Your task to perform on an android device: Search for bose soundlink mini on ebay.com, select the first entry, add it to the cart, then select checkout. Image 0: 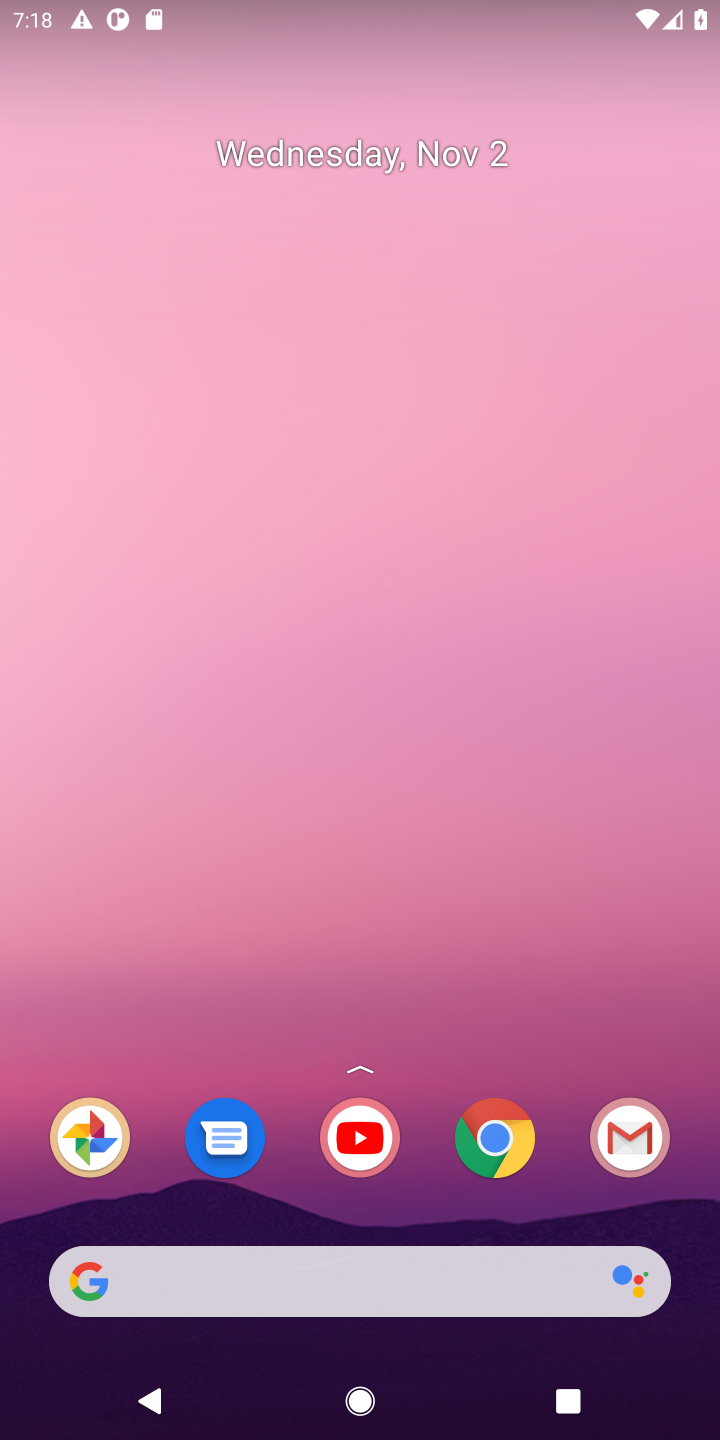
Step 0: drag from (340, 935) to (340, 172)
Your task to perform on an android device: Search for bose soundlink mini on ebay.com, select the first entry, add it to the cart, then select checkout. Image 1: 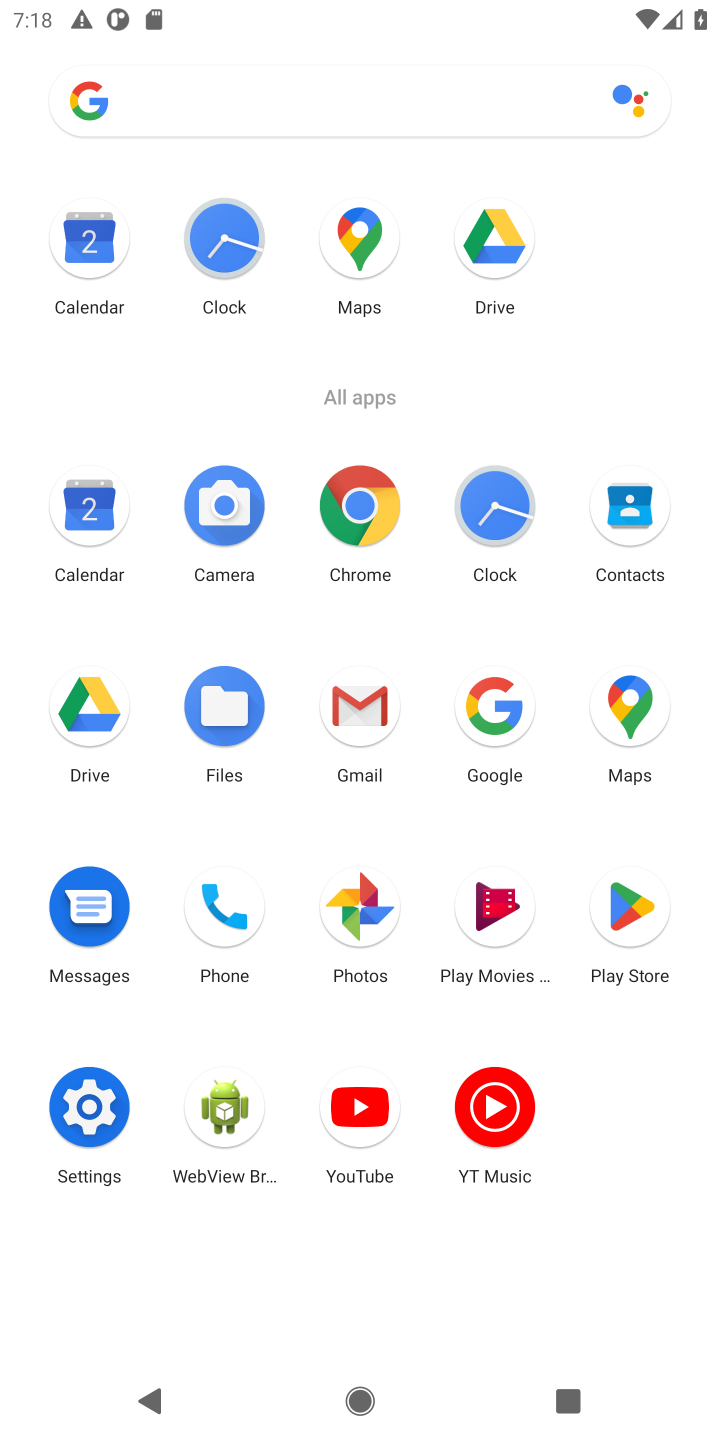
Step 1: click (496, 705)
Your task to perform on an android device: Search for bose soundlink mini on ebay.com, select the first entry, add it to the cart, then select checkout. Image 2: 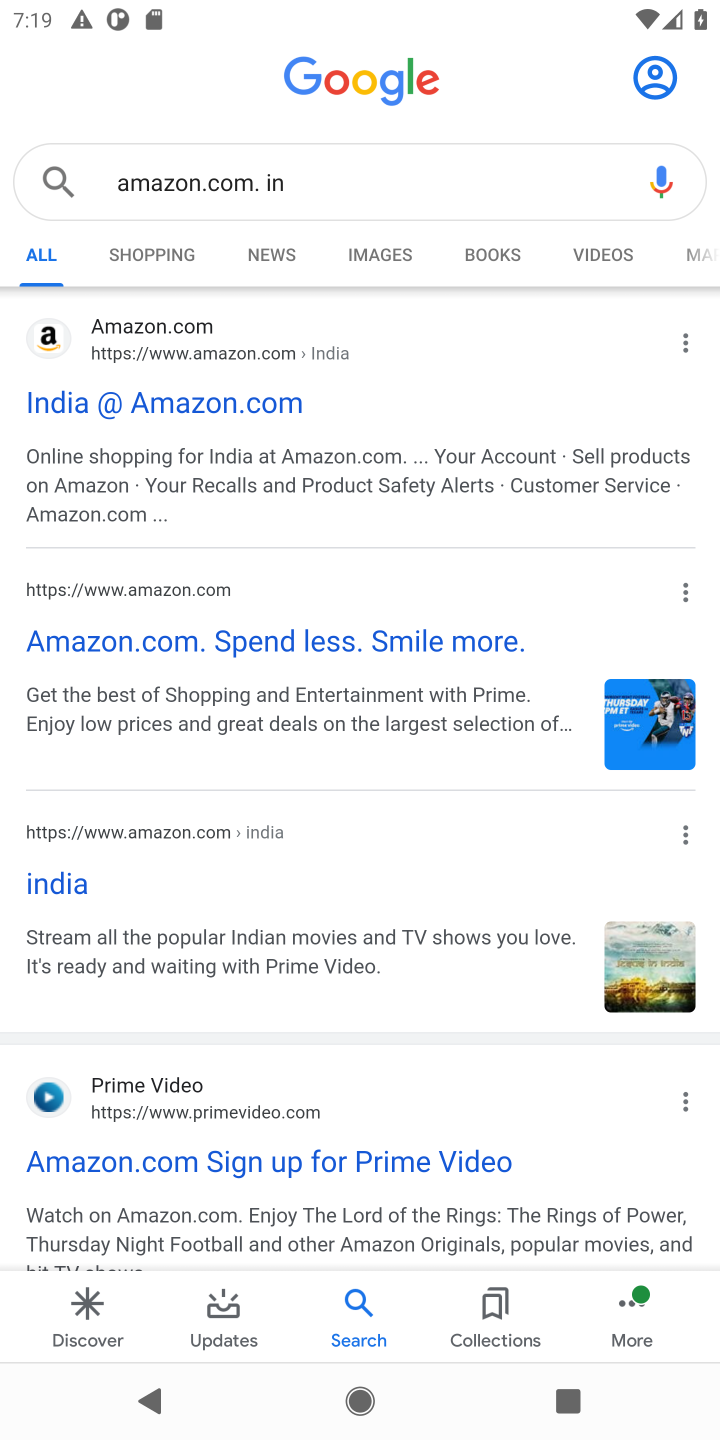
Step 2: click (323, 147)
Your task to perform on an android device: Search for bose soundlink mini on ebay.com, select the first entry, add it to the cart, then select checkout. Image 3: 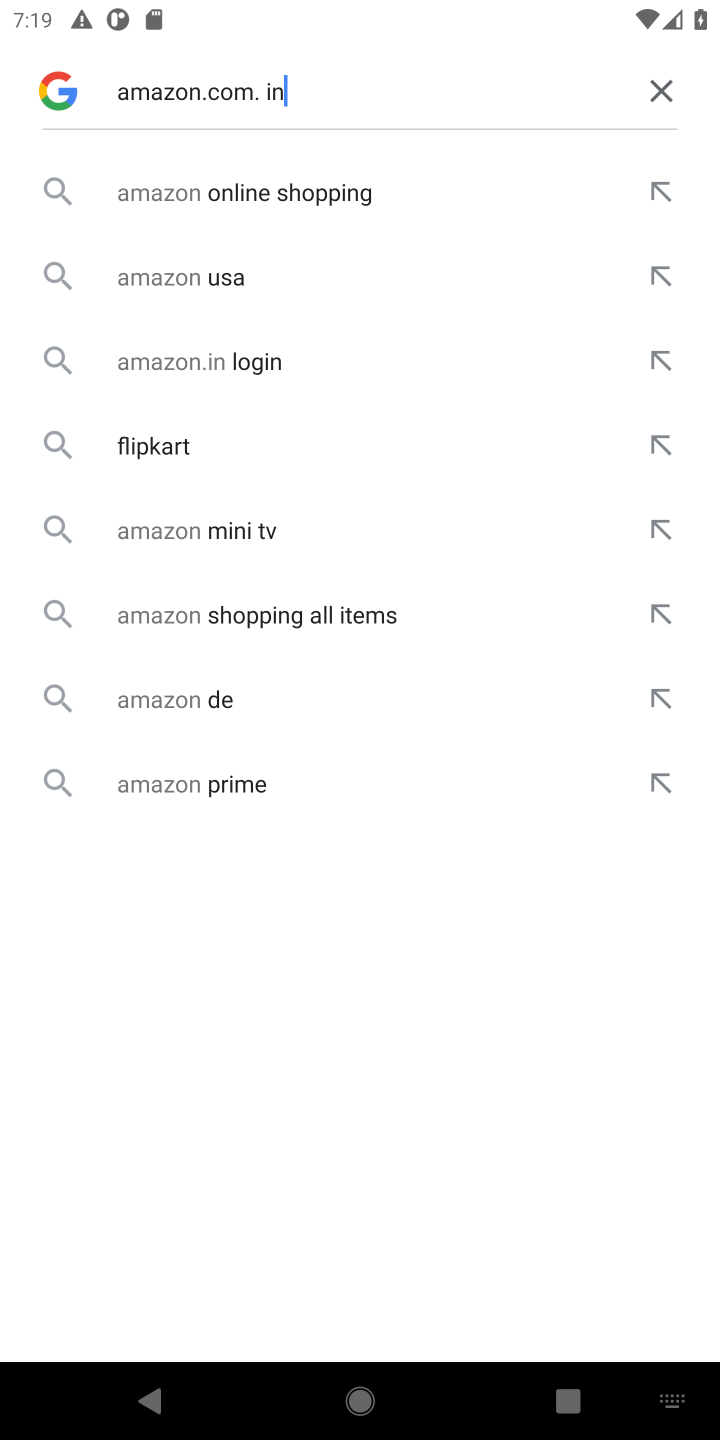
Step 3: click (680, 84)
Your task to perform on an android device: Search for bose soundlink mini on ebay.com, select the first entry, add it to the cart, then select checkout. Image 4: 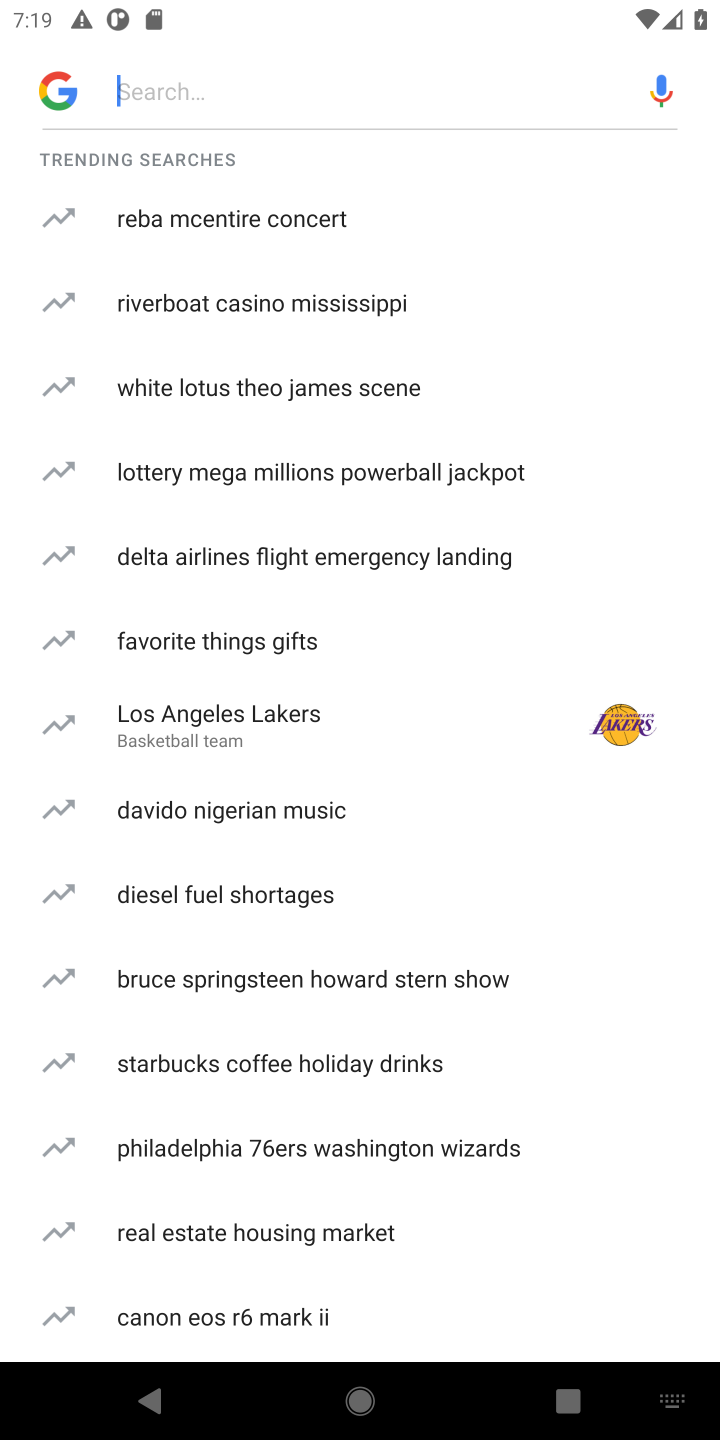
Step 4: click (213, 82)
Your task to perform on an android device: Search for bose soundlink mini on ebay.com, select the first entry, add it to the cart, then select checkout. Image 5: 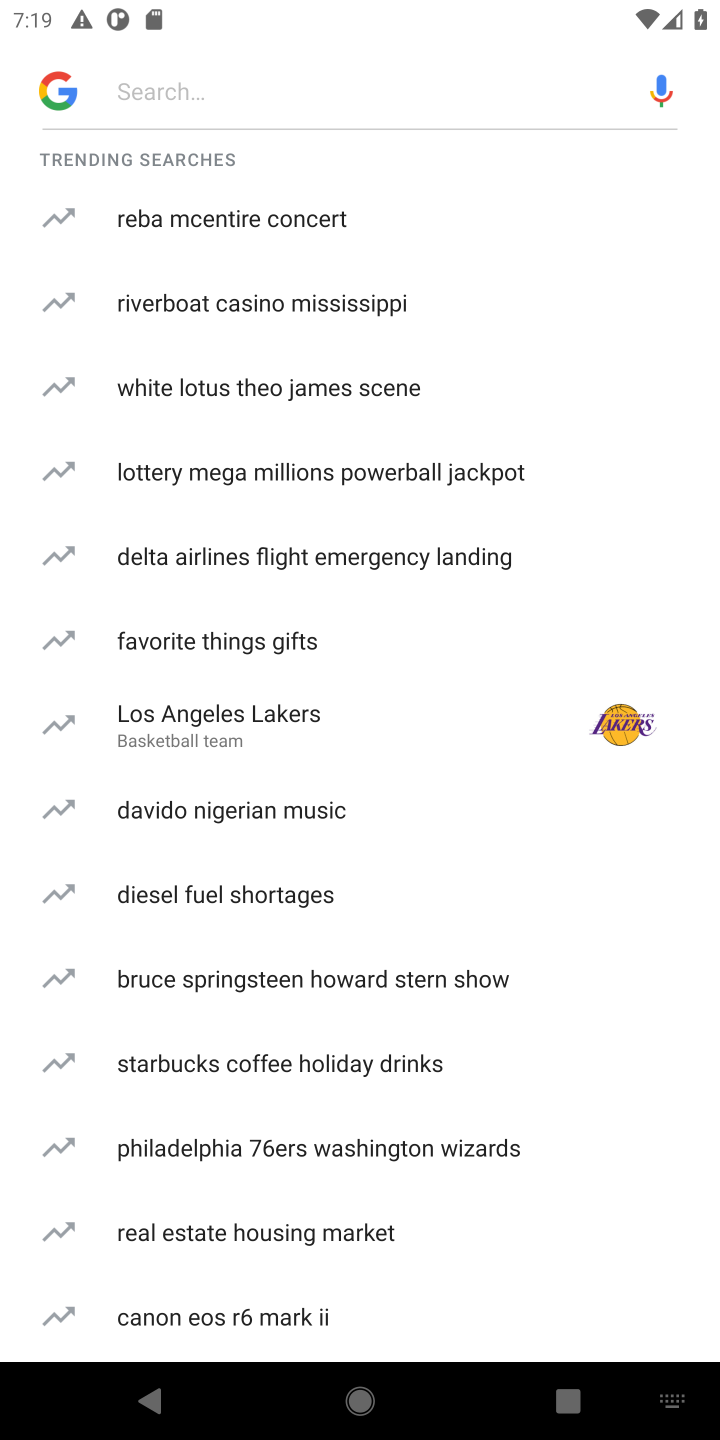
Step 5: type "ebay "
Your task to perform on an android device: Search for bose soundlink mini on ebay.com, select the first entry, add it to the cart, then select checkout. Image 6: 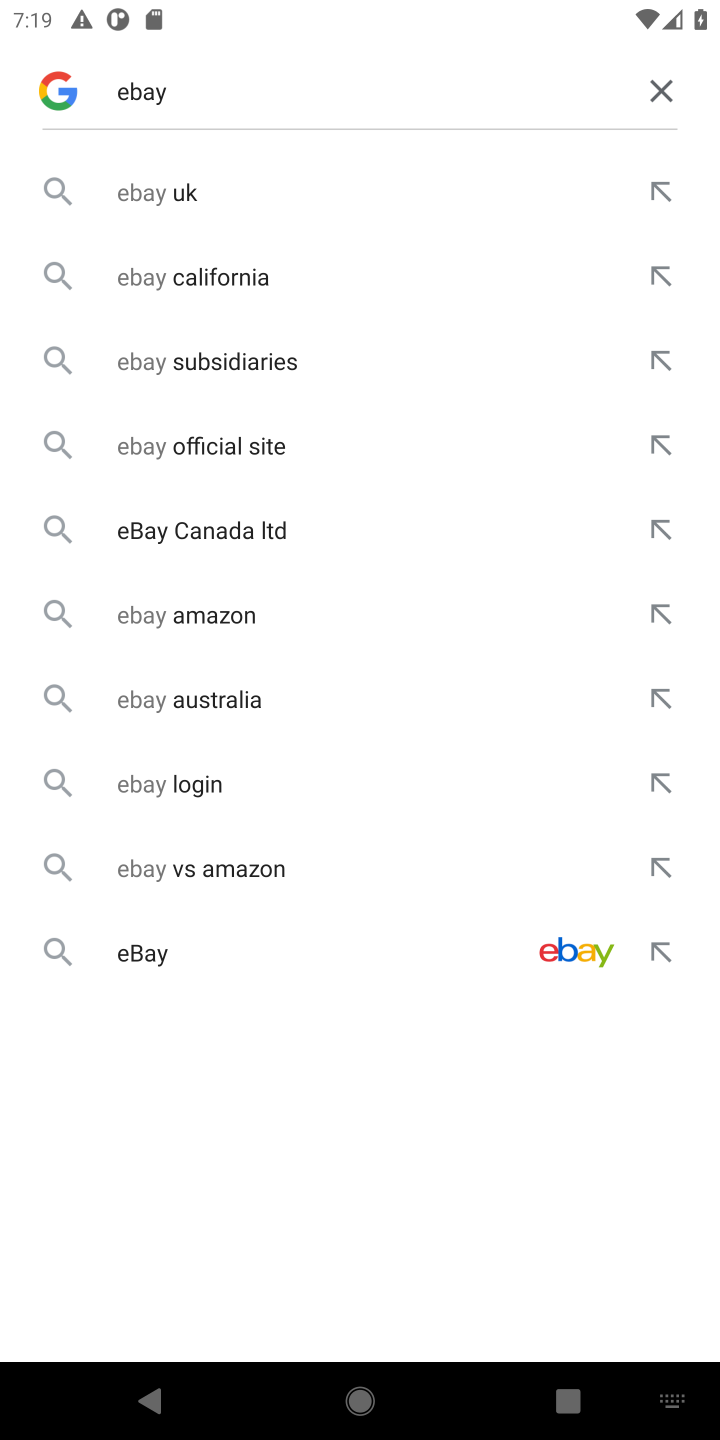
Step 6: click (197, 194)
Your task to perform on an android device: Search for bose soundlink mini on ebay.com, select the first entry, add it to the cart, then select checkout. Image 7: 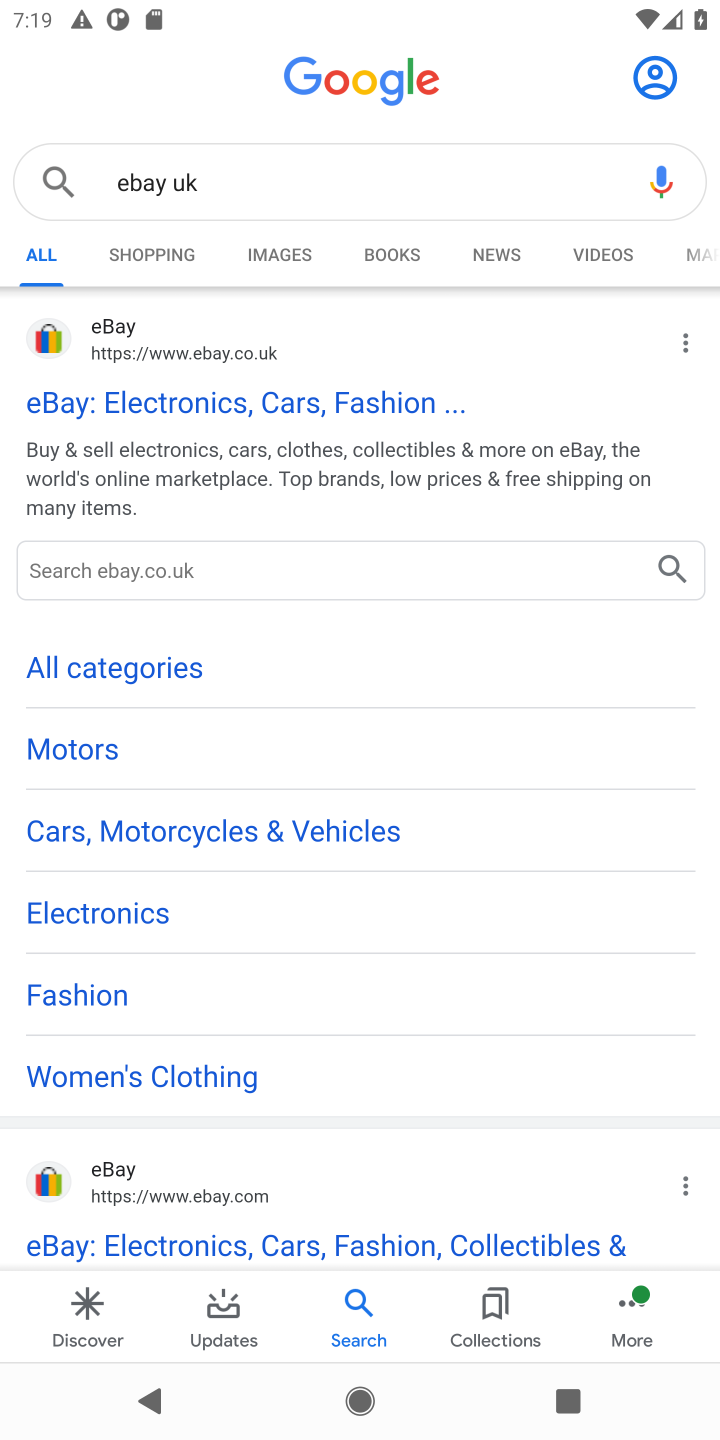
Step 7: click (52, 406)
Your task to perform on an android device: Search for bose soundlink mini on ebay.com, select the first entry, add it to the cart, then select checkout. Image 8: 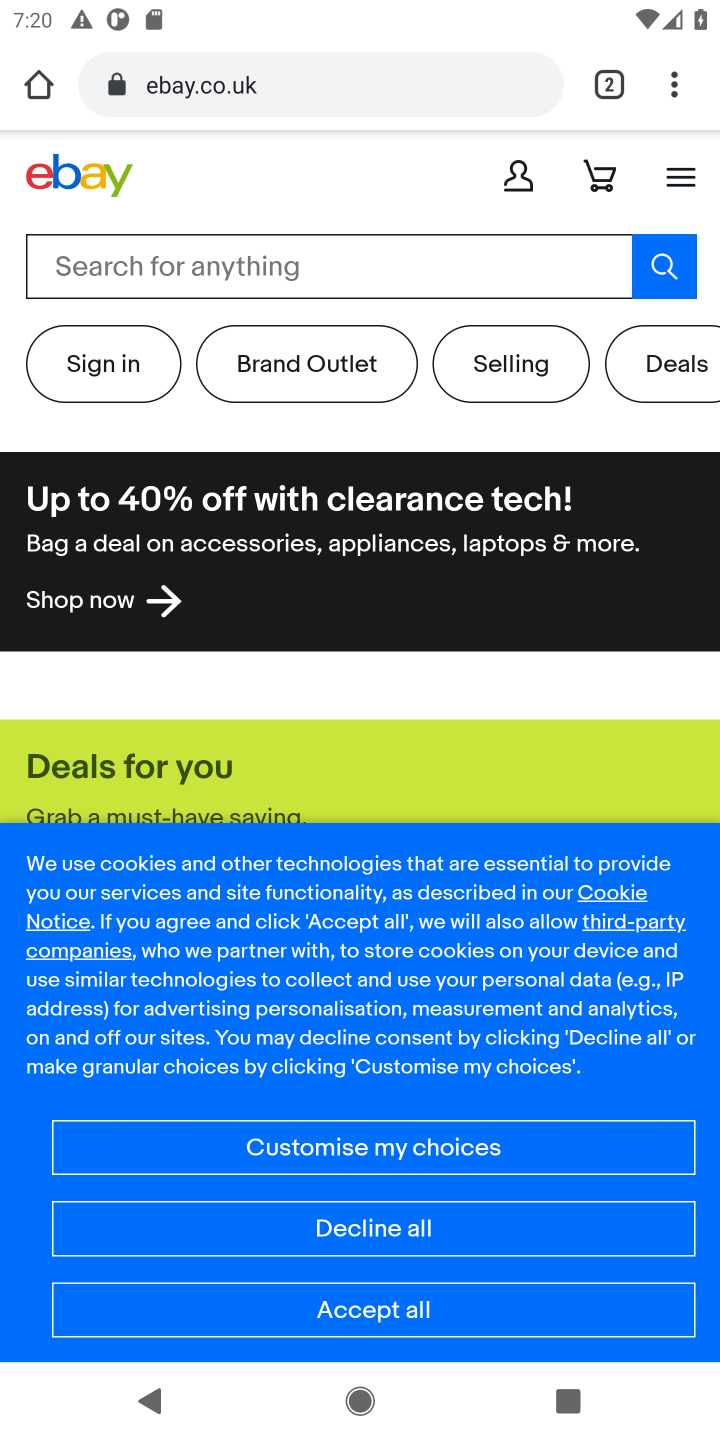
Step 8: click (378, 1303)
Your task to perform on an android device: Search for bose soundlink mini on ebay.com, select the first entry, add it to the cart, then select checkout. Image 9: 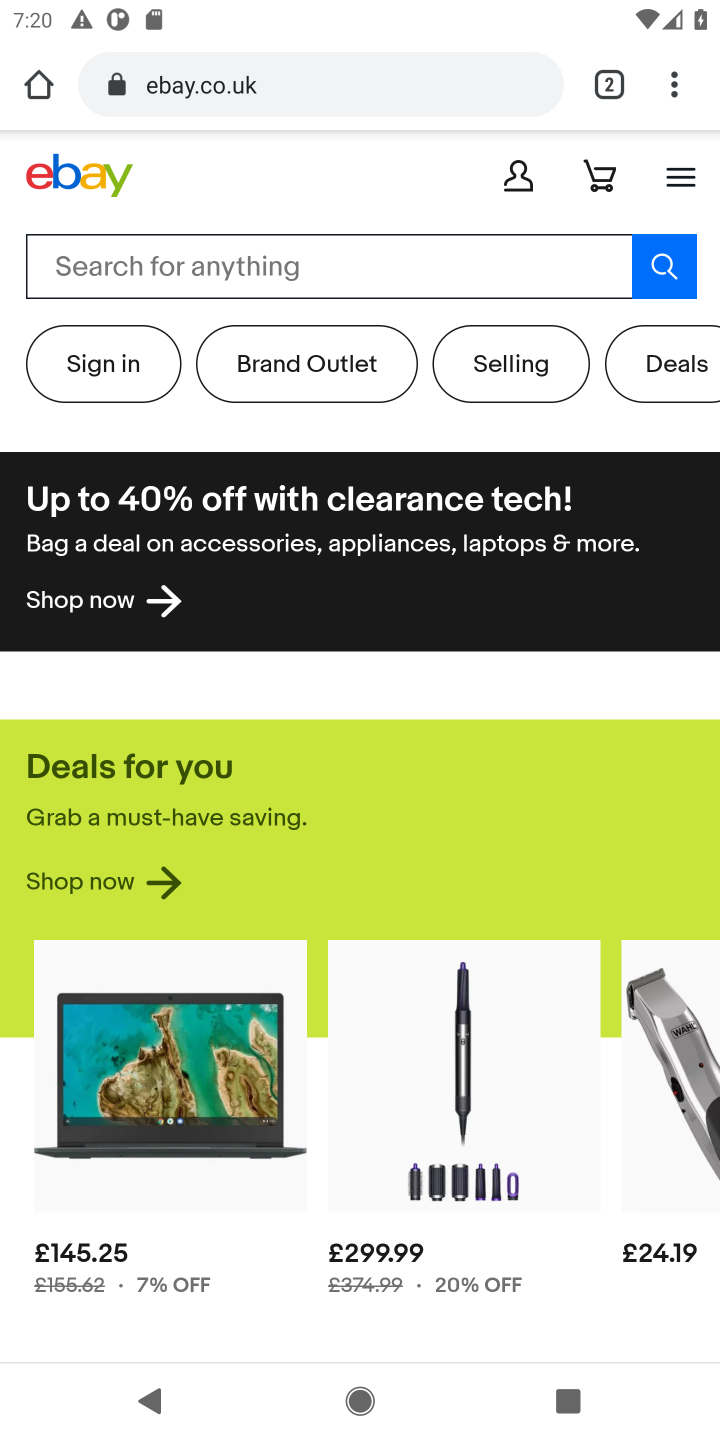
Step 9: click (395, 268)
Your task to perform on an android device: Search for bose soundlink mini on ebay.com, select the first entry, add it to the cart, then select checkout. Image 10: 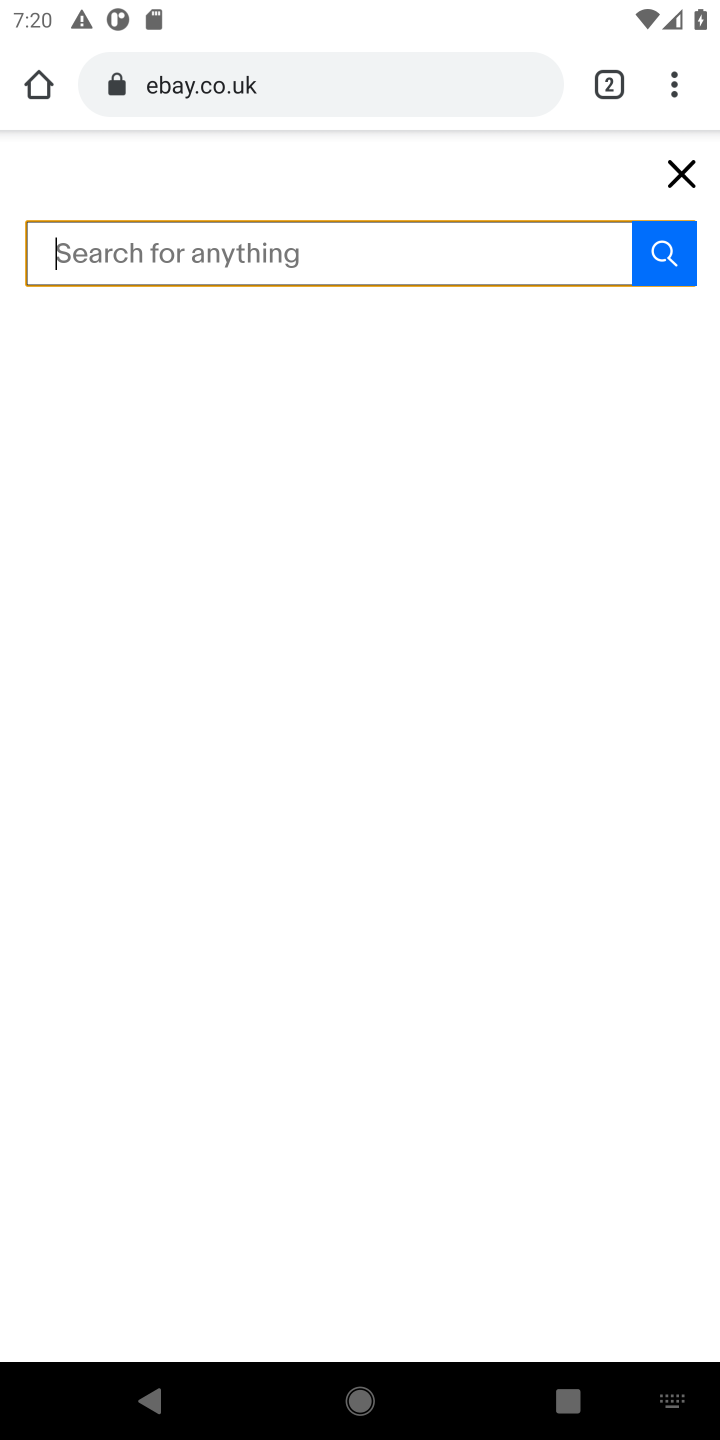
Step 10: type " bose soundlink  "
Your task to perform on an android device: Search for bose soundlink mini on ebay.com, select the first entry, add it to the cart, then select checkout. Image 11: 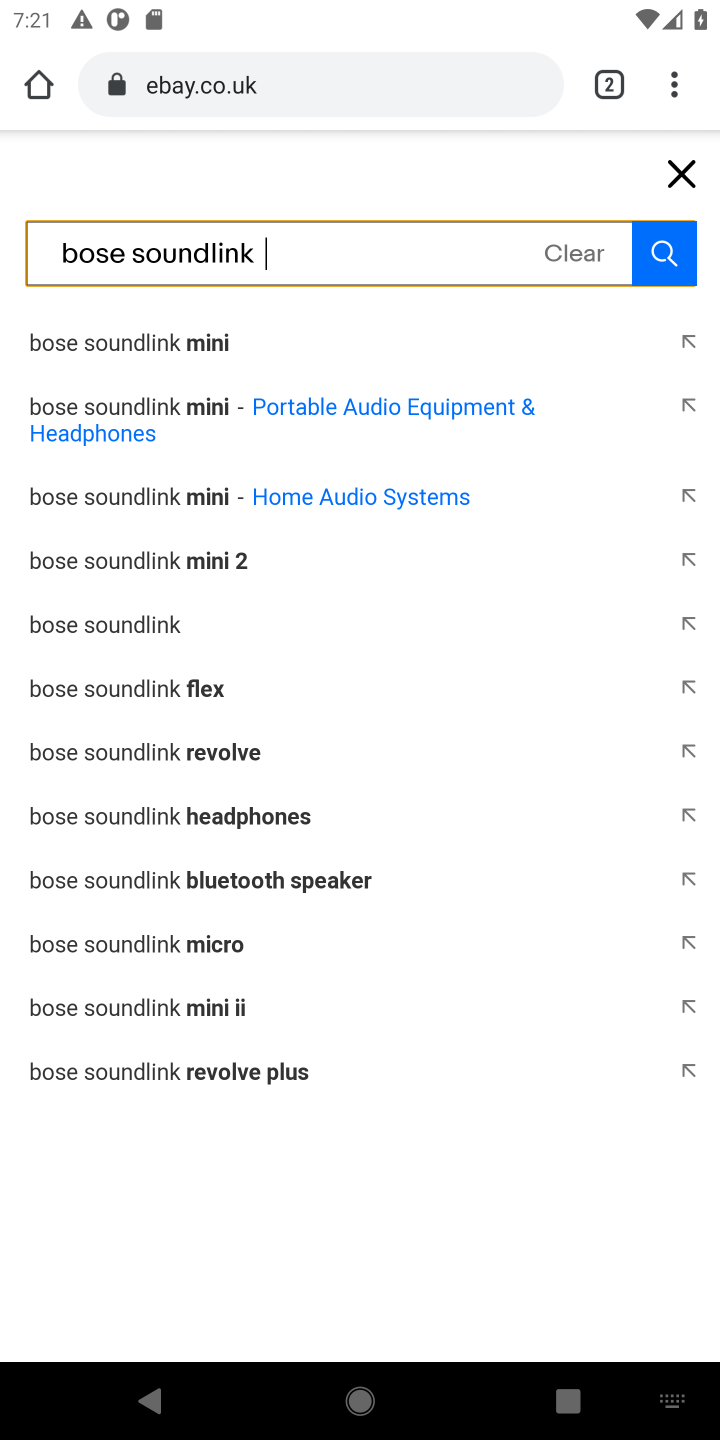
Step 11: click (93, 338)
Your task to perform on an android device: Search for bose soundlink mini on ebay.com, select the first entry, add it to the cart, then select checkout. Image 12: 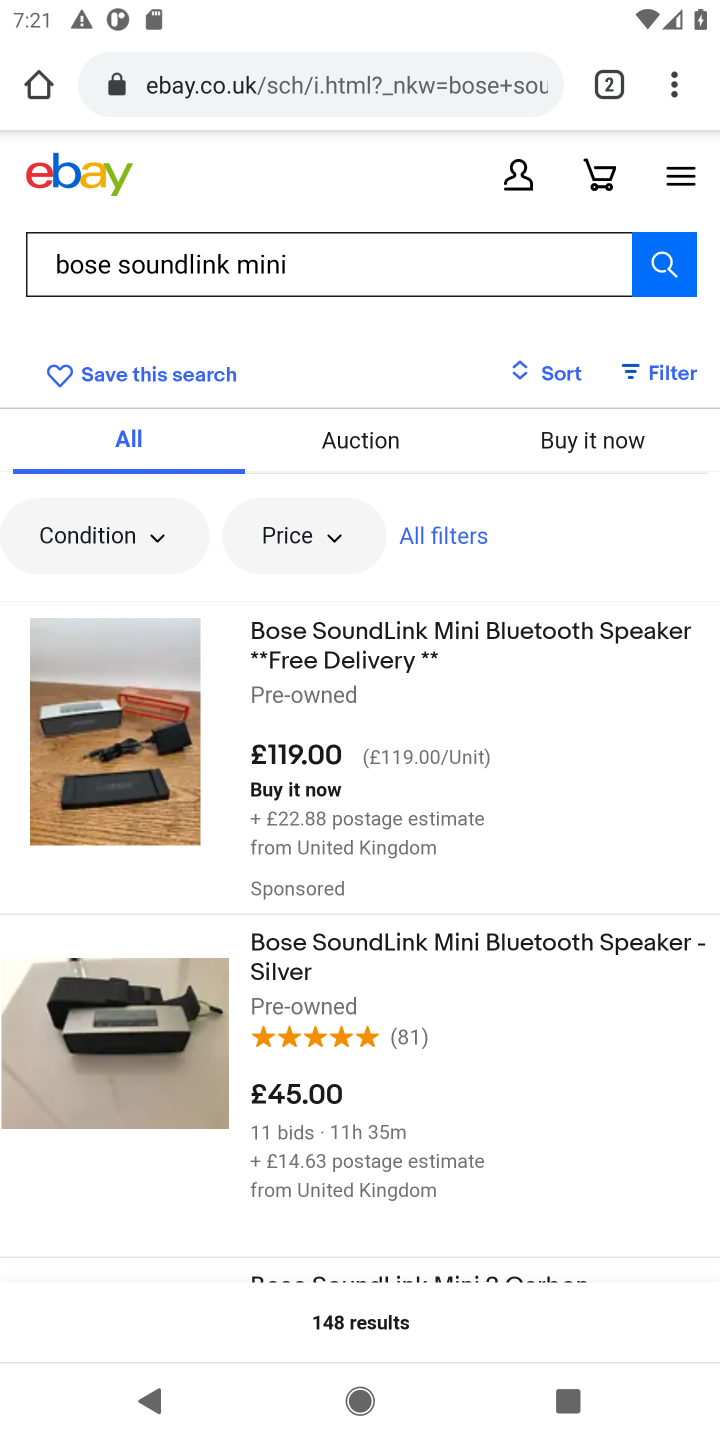
Step 12: click (301, 627)
Your task to perform on an android device: Search for bose soundlink mini on ebay.com, select the first entry, add it to the cart, then select checkout. Image 13: 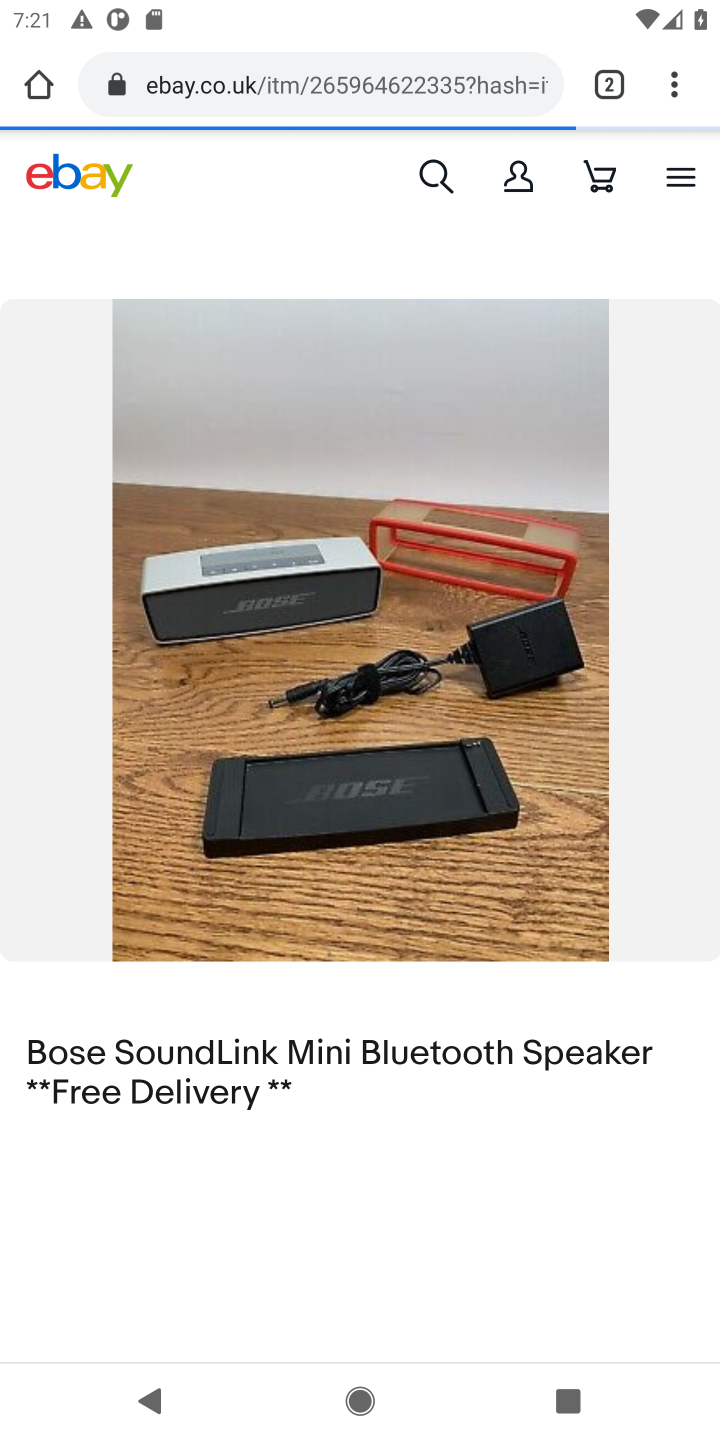
Step 13: drag from (259, 1291) to (317, 238)
Your task to perform on an android device: Search for bose soundlink mini on ebay.com, select the first entry, add it to the cart, then select checkout. Image 14: 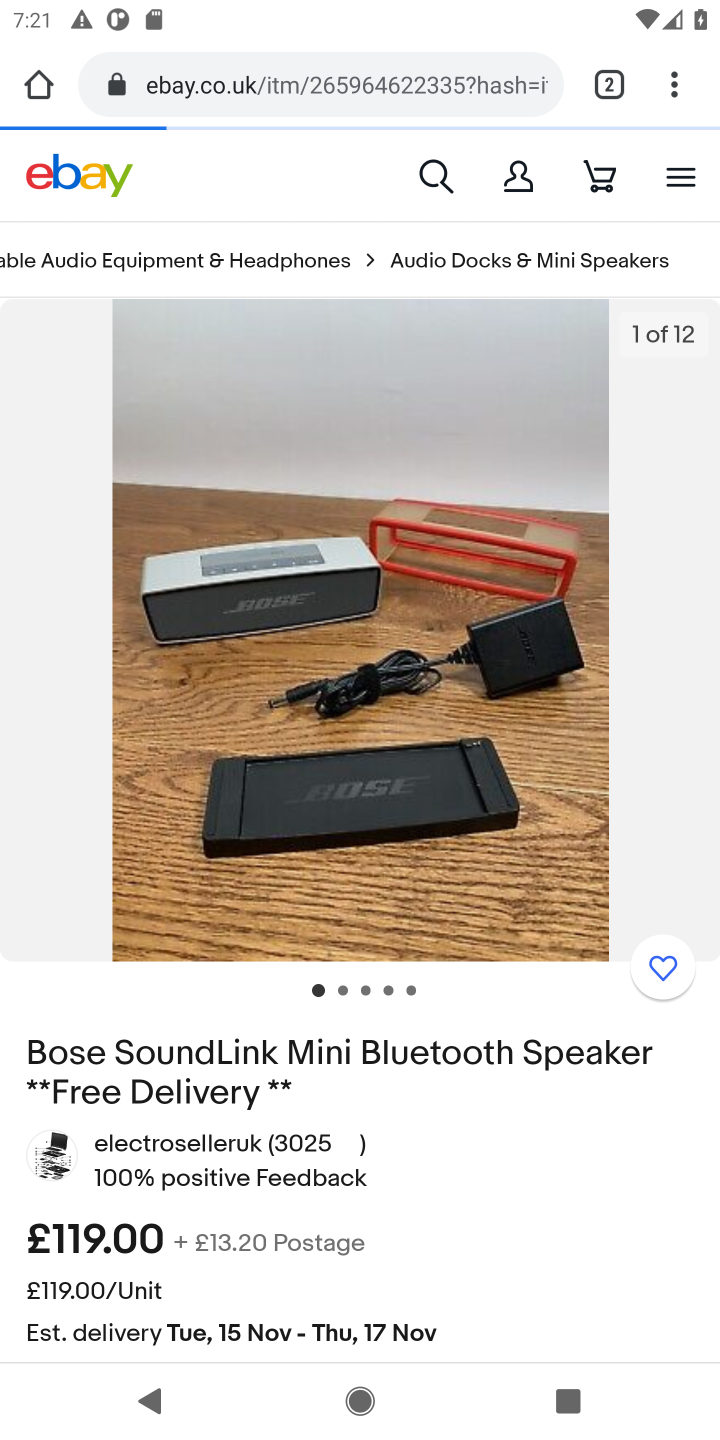
Step 14: drag from (233, 1265) to (229, 646)
Your task to perform on an android device: Search for bose soundlink mini on ebay.com, select the first entry, add it to the cart, then select checkout. Image 15: 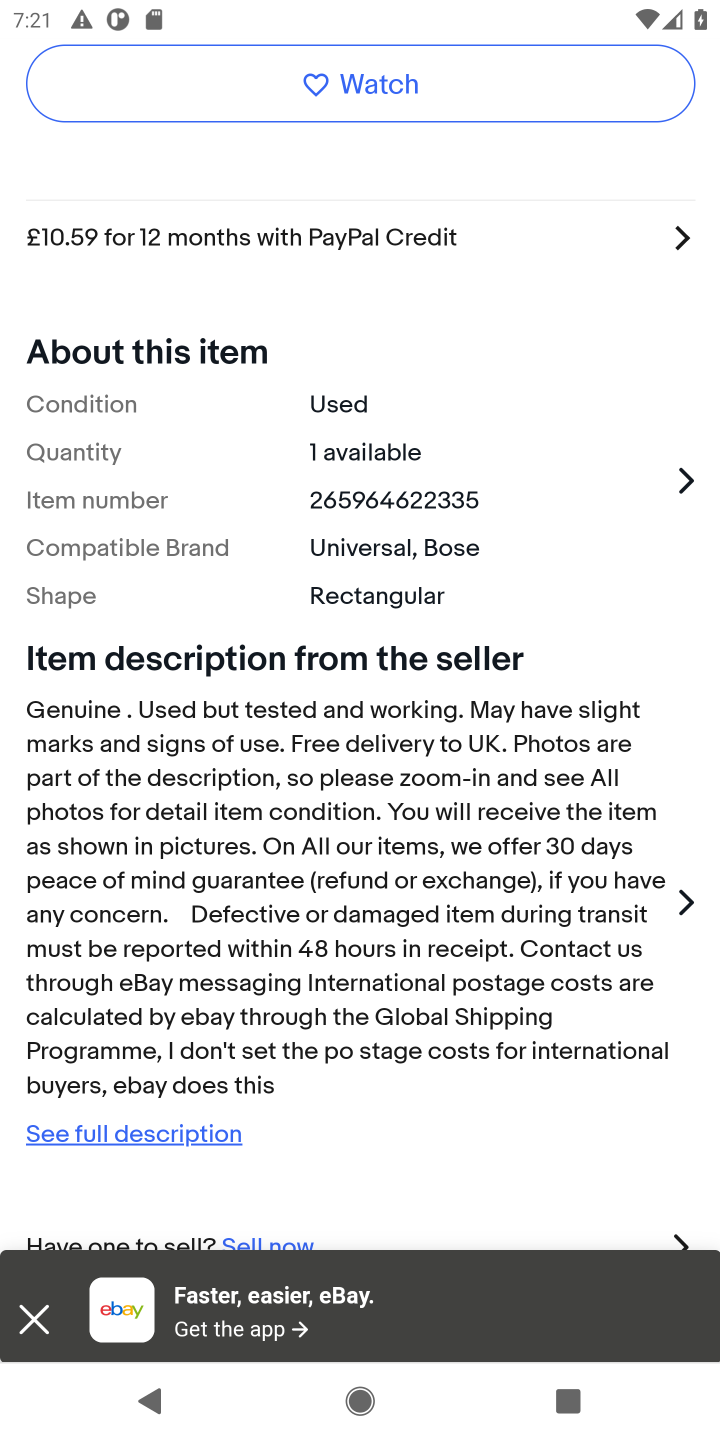
Step 15: drag from (301, 143) to (332, 913)
Your task to perform on an android device: Search for bose soundlink mini on ebay.com, select the first entry, add it to the cart, then select checkout. Image 16: 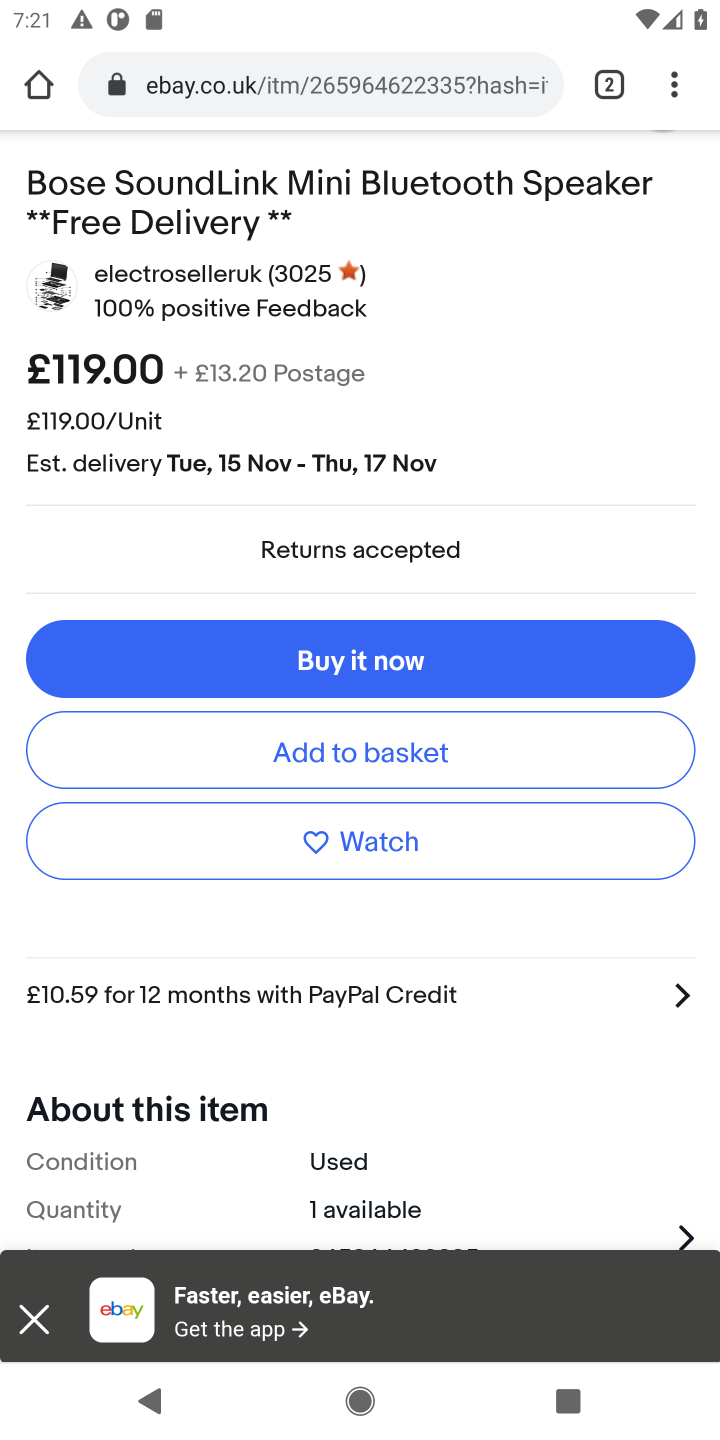
Step 16: click (391, 734)
Your task to perform on an android device: Search for bose soundlink mini on ebay.com, select the first entry, add it to the cart, then select checkout. Image 17: 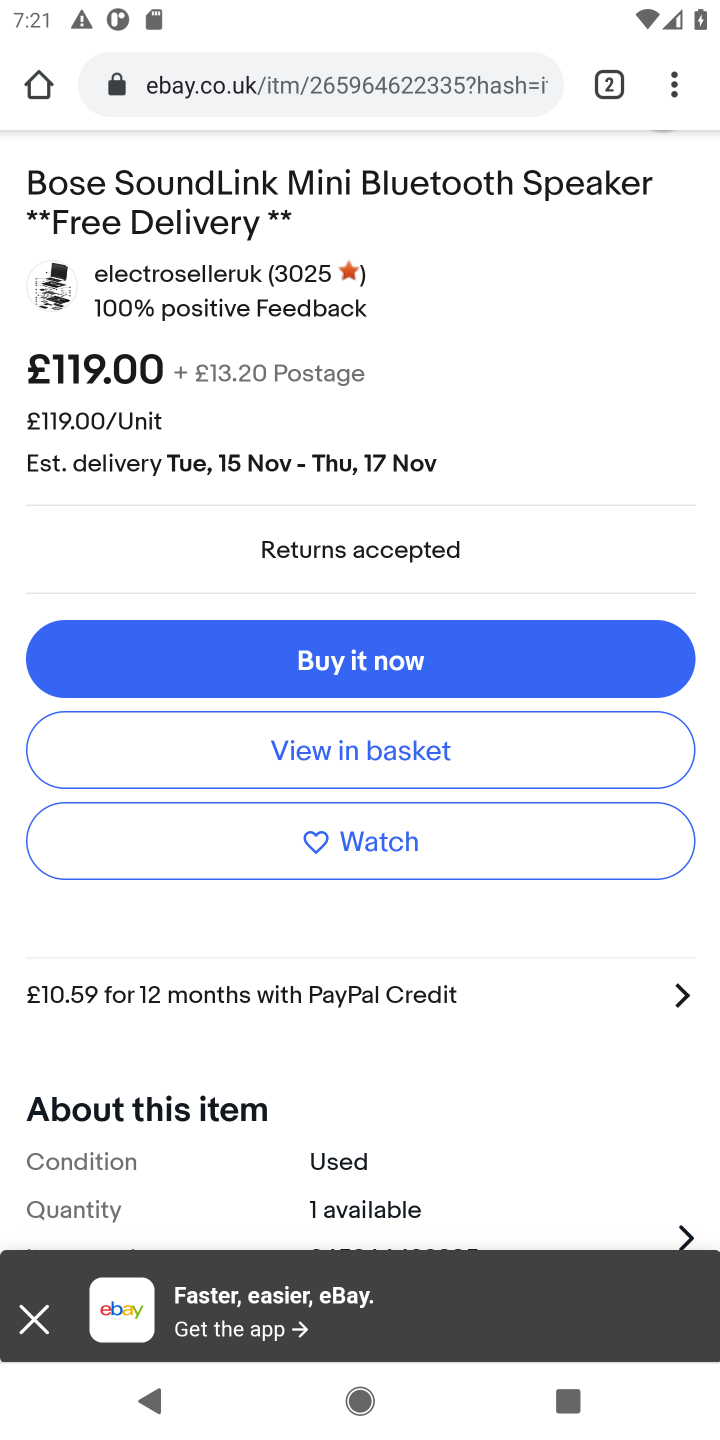
Step 17: task complete